Your task to perform on an android device: clear all cookies in the chrome app Image 0: 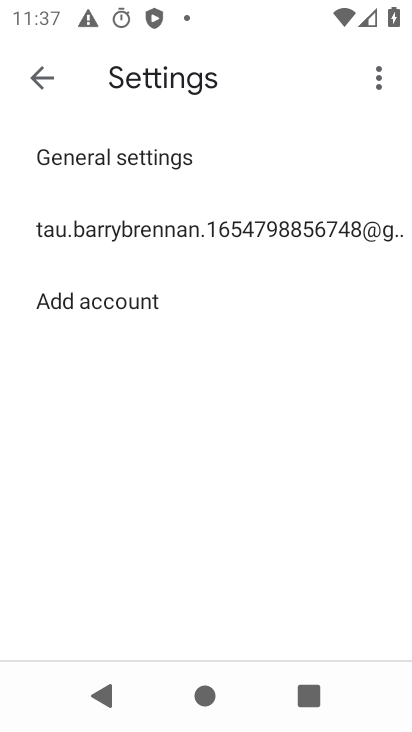
Step 0: press home button
Your task to perform on an android device: clear all cookies in the chrome app Image 1: 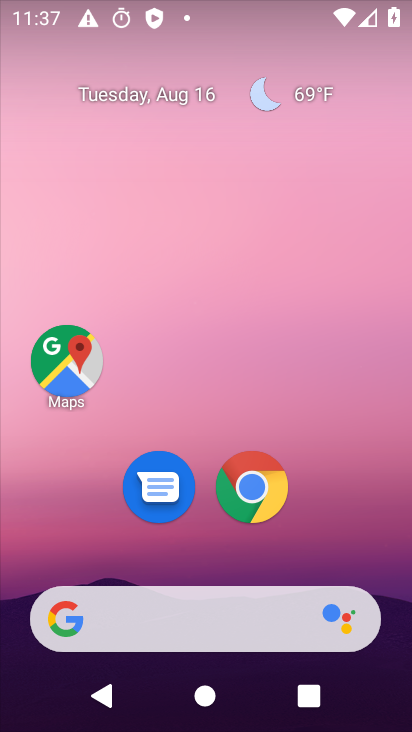
Step 1: click (267, 503)
Your task to perform on an android device: clear all cookies in the chrome app Image 2: 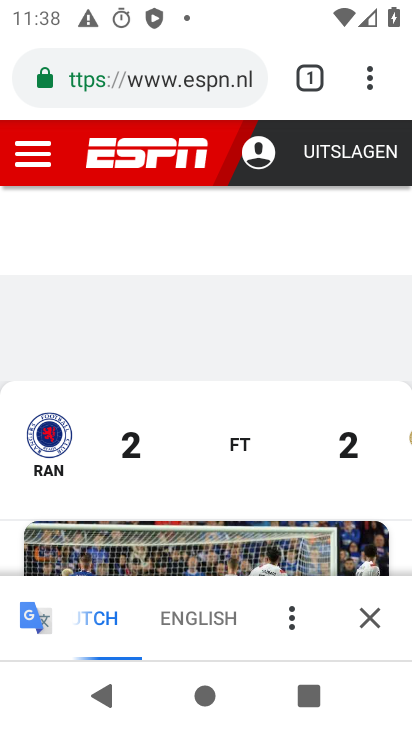
Step 2: click (378, 71)
Your task to perform on an android device: clear all cookies in the chrome app Image 3: 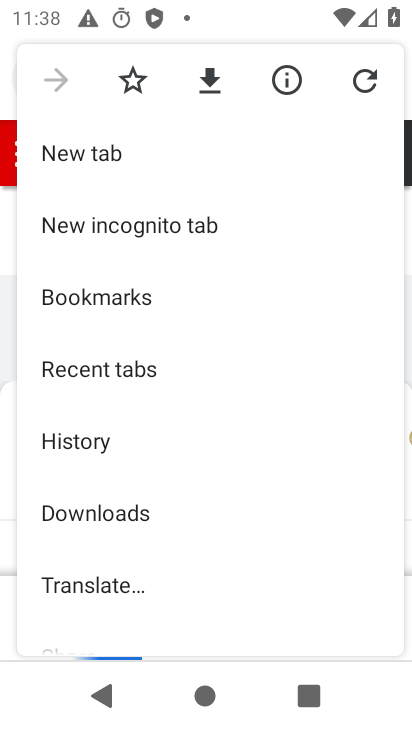
Step 3: click (111, 445)
Your task to perform on an android device: clear all cookies in the chrome app Image 4: 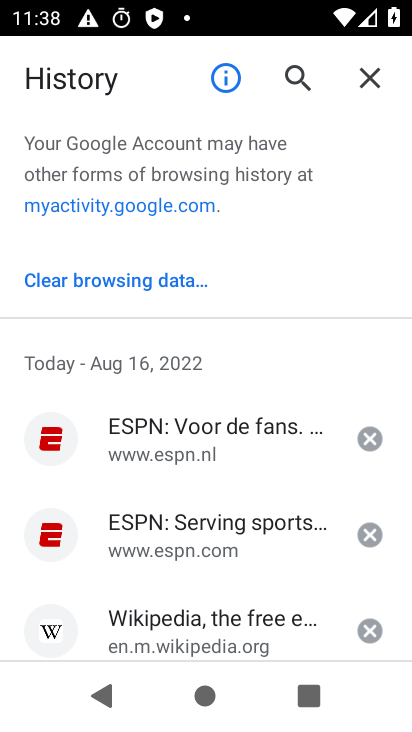
Step 4: click (176, 284)
Your task to perform on an android device: clear all cookies in the chrome app Image 5: 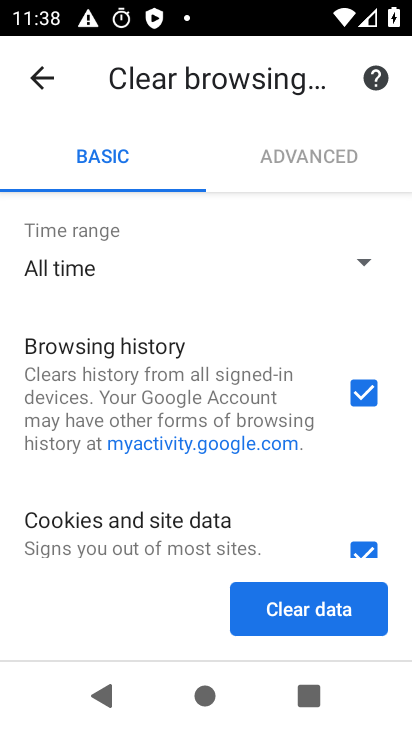
Step 5: click (365, 393)
Your task to perform on an android device: clear all cookies in the chrome app Image 6: 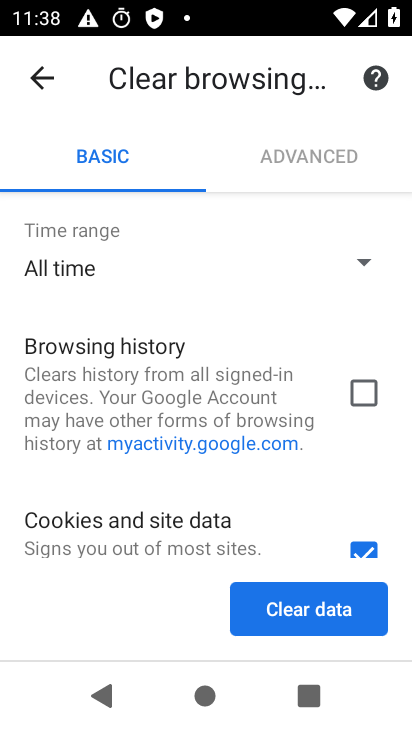
Step 6: click (344, 611)
Your task to perform on an android device: clear all cookies in the chrome app Image 7: 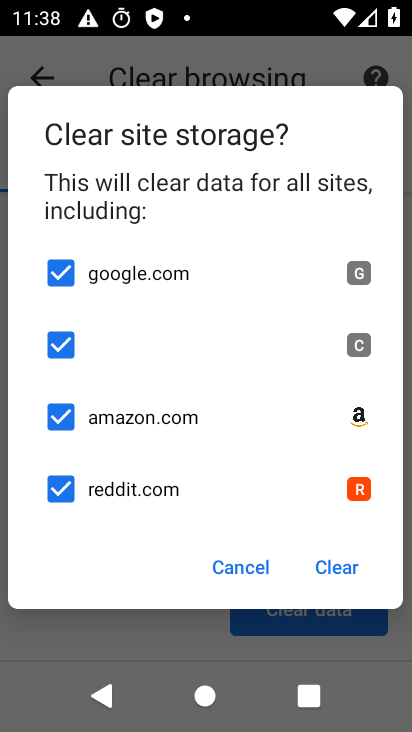
Step 7: click (341, 570)
Your task to perform on an android device: clear all cookies in the chrome app Image 8: 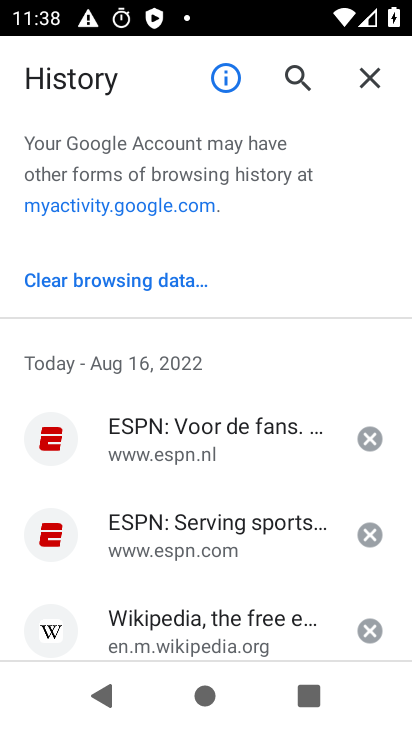
Step 8: task complete